Your task to perform on an android device: change the upload size in google photos Image 0: 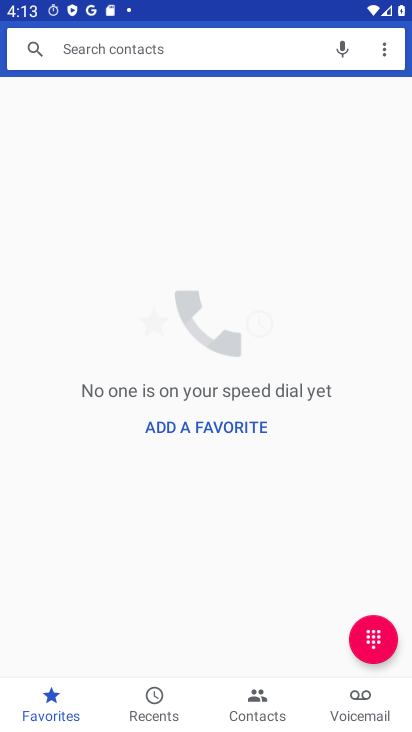
Step 0: press home button
Your task to perform on an android device: change the upload size in google photos Image 1: 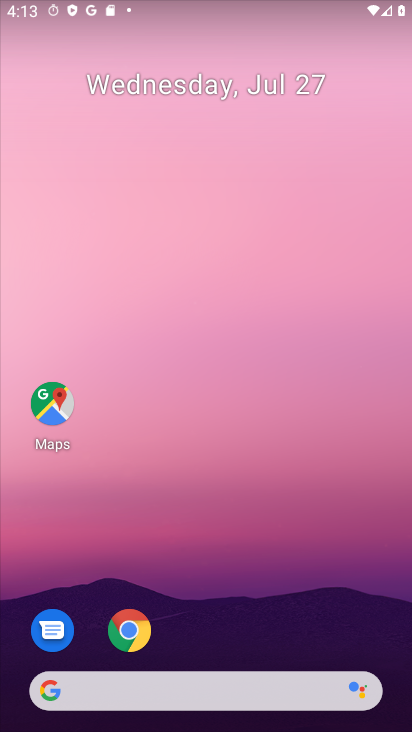
Step 1: drag from (219, 612) to (292, 14)
Your task to perform on an android device: change the upload size in google photos Image 2: 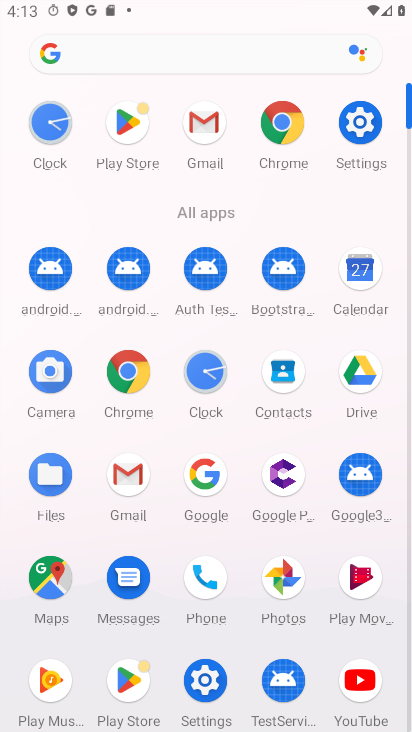
Step 2: click (291, 583)
Your task to perform on an android device: change the upload size in google photos Image 3: 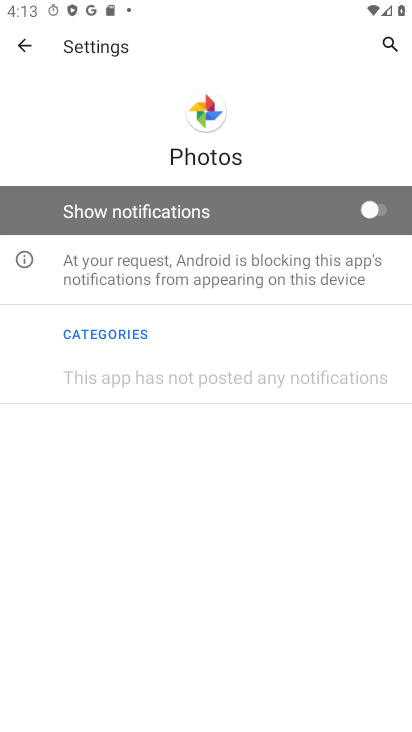
Step 3: click (15, 38)
Your task to perform on an android device: change the upload size in google photos Image 4: 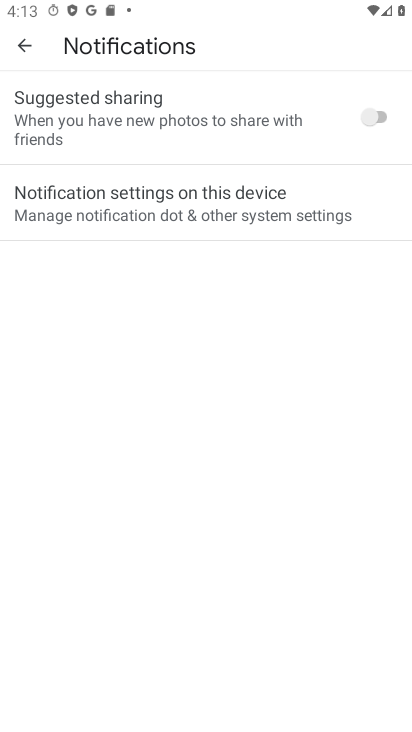
Step 4: click (20, 49)
Your task to perform on an android device: change the upload size in google photos Image 5: 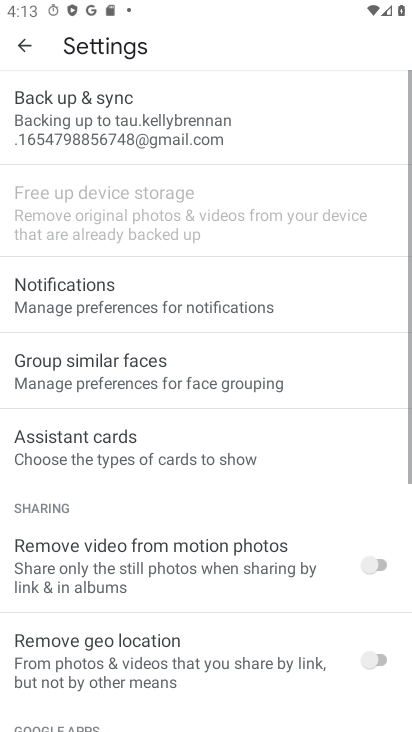
Step 5: click (20, 49)
Your task to perform on an android device: change the upload size in google photos Image 6: 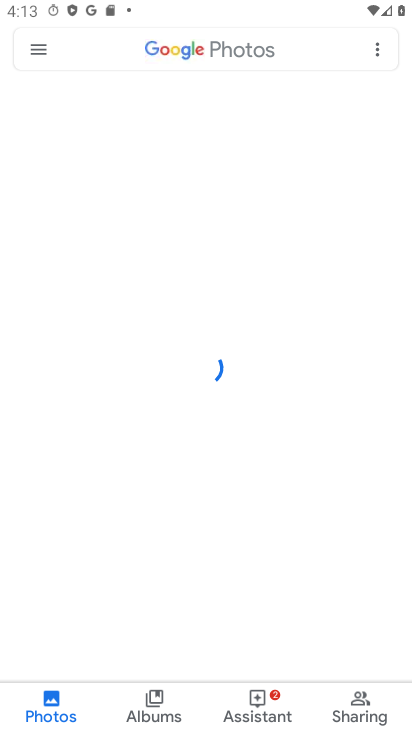
Step 6: click (24, 47)
Your task to perform on an android device: change the upload size in google photos Image 7: 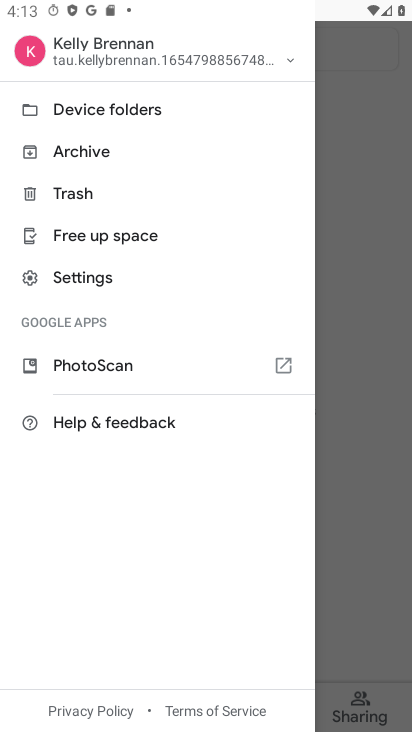
Step 7: click (98, 283)
Your task to perform on an android device: change the upload size in google photos Image 8: 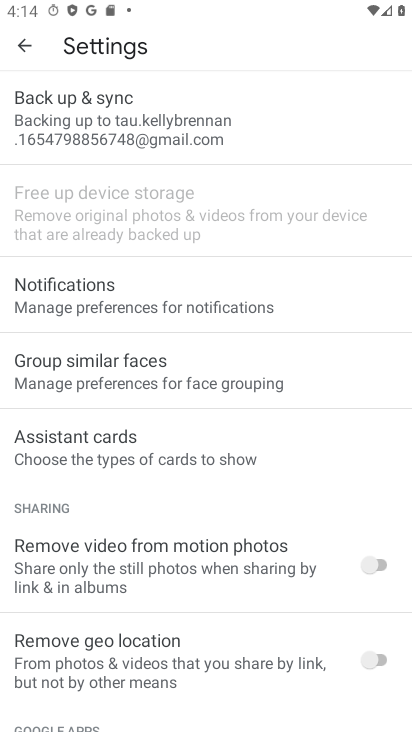
Step 8: click (107, 116)
Your task to perform on an android device: change the upload size in google photos Image 9: 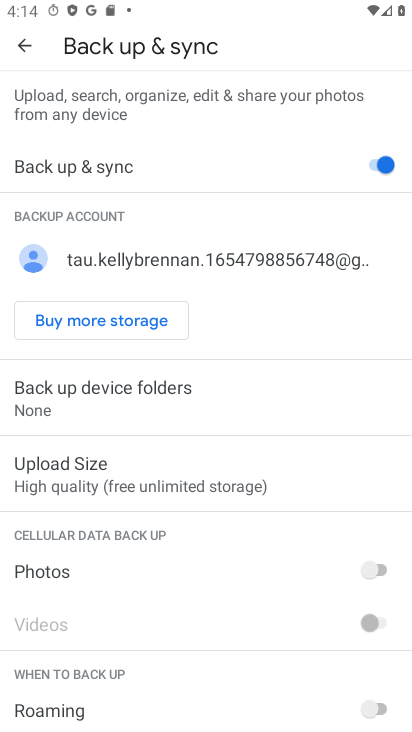
Step 9: click (125, 487)
Your task to perform on an android device: change the upload size in google photos Image 10: 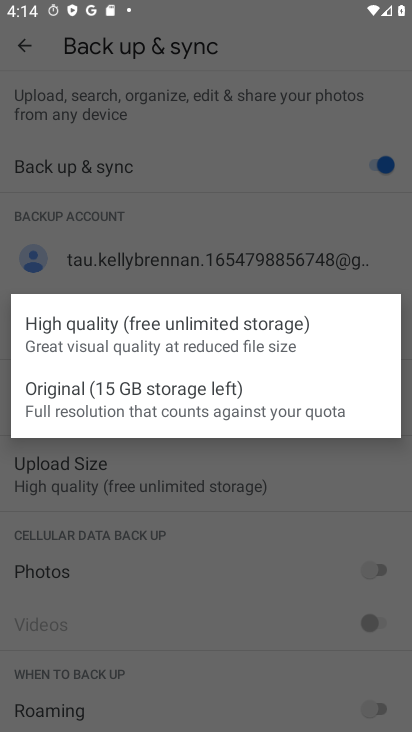
Step 10: click (121, 413)
Your task to perform on an android device: change the upload size in google photos Image 11: 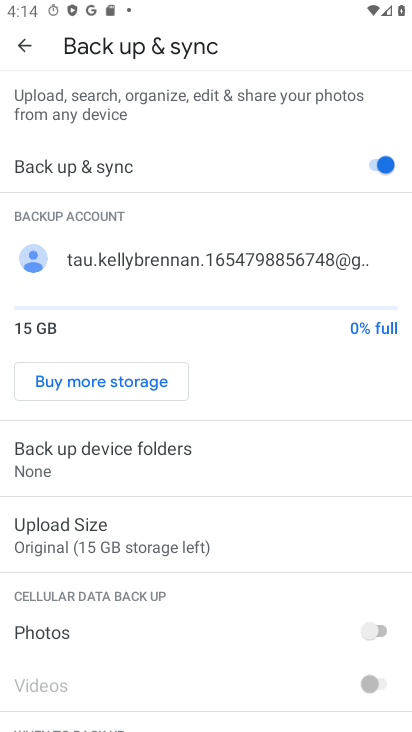
Step 11: task complete